Your task to perform on an android device: Open Google Maps Image 0: 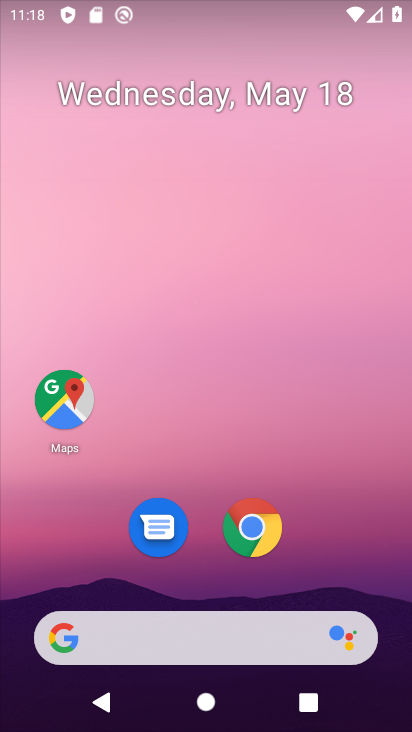
Step 0: click (66, 379)
Your task to perform on an android device: Open Google Maps Image 1: 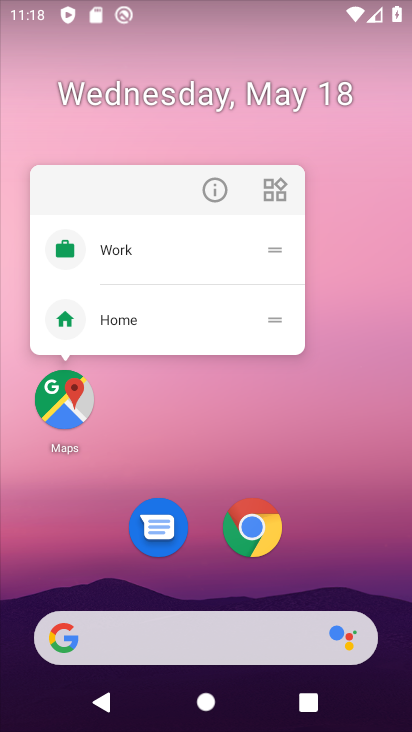
Step 1: click (74, 396)
Your task to perform on an android device: Open Google Maps Image 2: 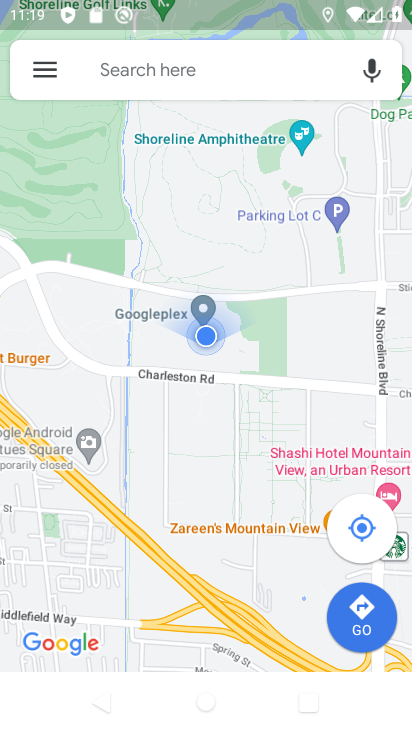
Step 2: task complete